Your task to perform on an android device: change your default location settings in chrome Image 0: 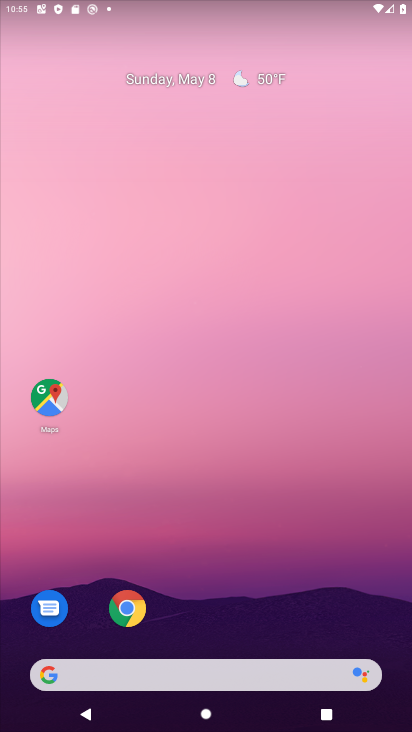
Step 0: drag from (260, 610) to (247, 110)
Your task to perform on an android device: change your default location settings in chrome Image 1: 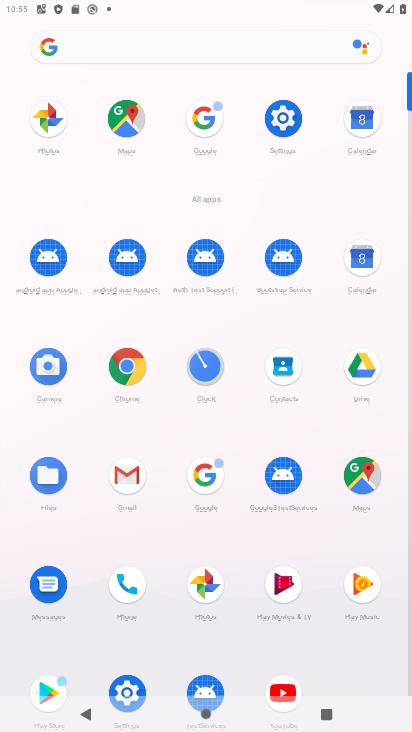
Step 1: click (129, 358)
Your task to perform on an android device: change your default location settings in chrome Image 2: 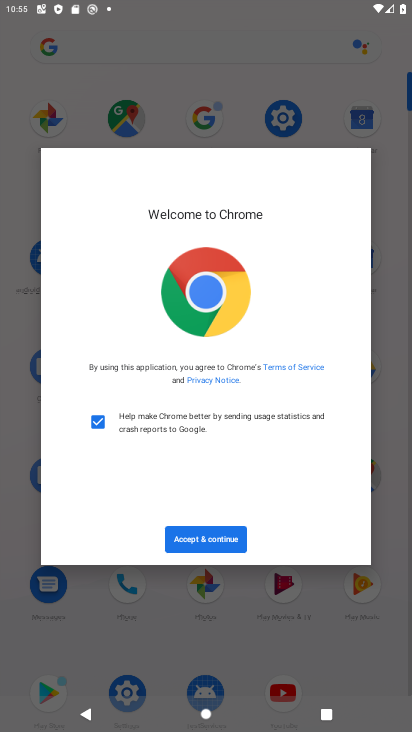
Step 2: click (238, 541)
Your task to perform on an android device: change your default location settings in chrome Image 3: 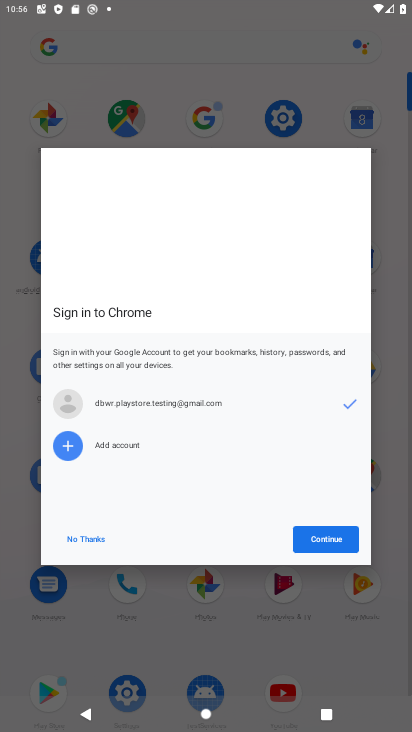
Step 3: click (93, 540)
Your task to perform on an android device: change your default location settings in chrome Image 4: 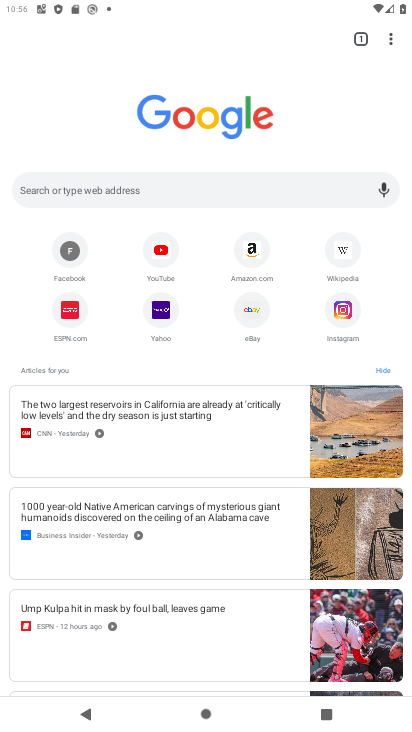
Step 4: drag from (392, 47) to (262, 332)
Your task to perform on an android device: change your default location settings in chrome Image 5: 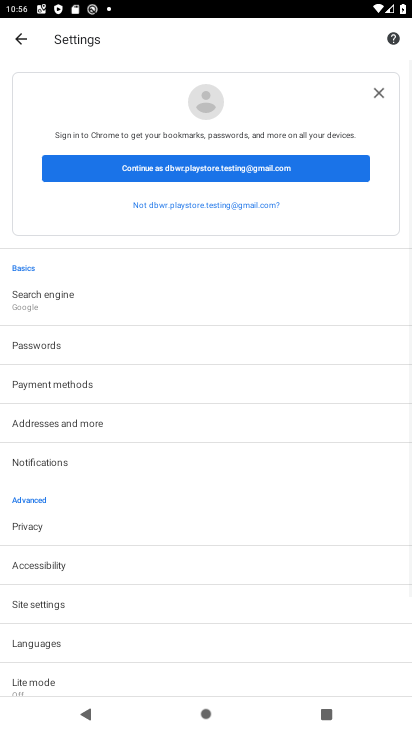
Step 5: drag from (238, 624) to (274, 221)
Your task to perform on an android device: change your default location settings in chrome Image 6: 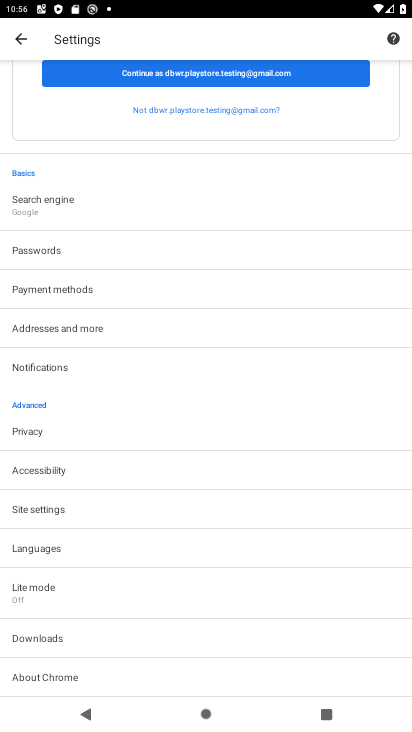
Step 6: drag from (168, 615) to (241, 207)
Your task to perform on an android device: change your default location settings in chrome Image 7: 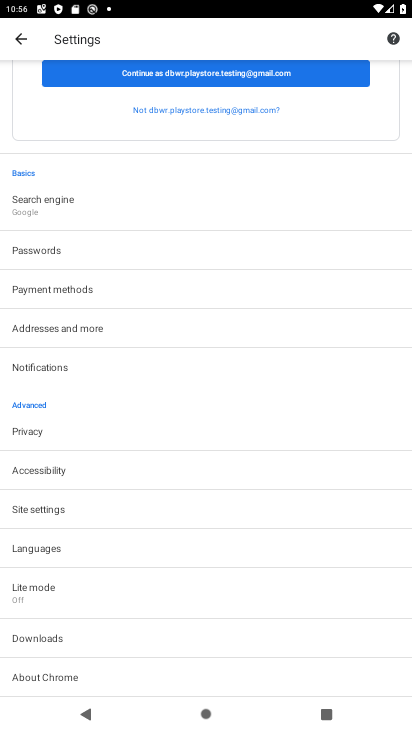
Step 7: drag from (169, 635) to (163, 232)
Your task to perform on an android device: change your default location settings in chrome Image 8: 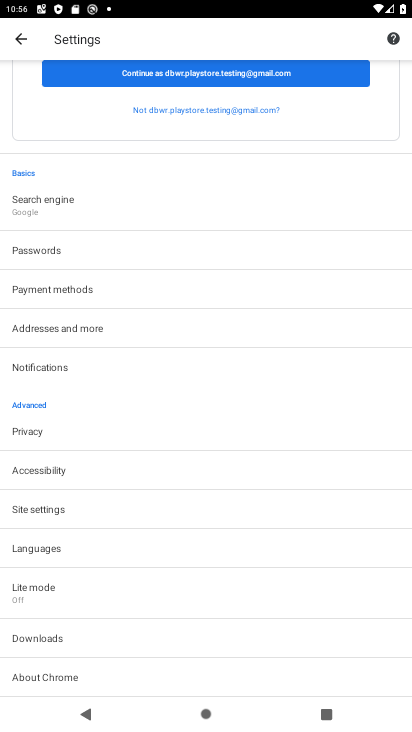
Step 8: click (16, 517)
Your task to perform on an android device: change your default location settings in chrome Image 9: 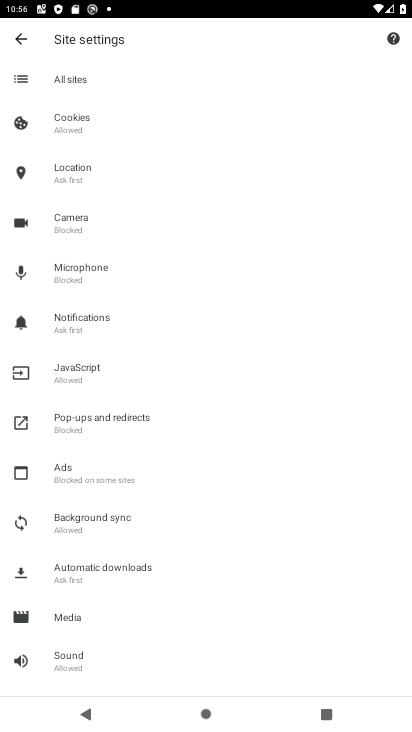
Step 9: click (83, 185)
Your task to perform on an android device: change your default location settings in chrome Image 10: 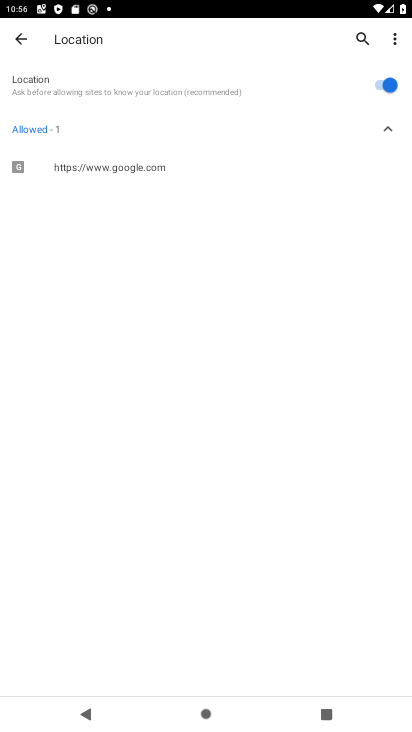
Step 10: click (372, 92)
Your task to perform on an android device: change your default location settings in chrome Image 11: 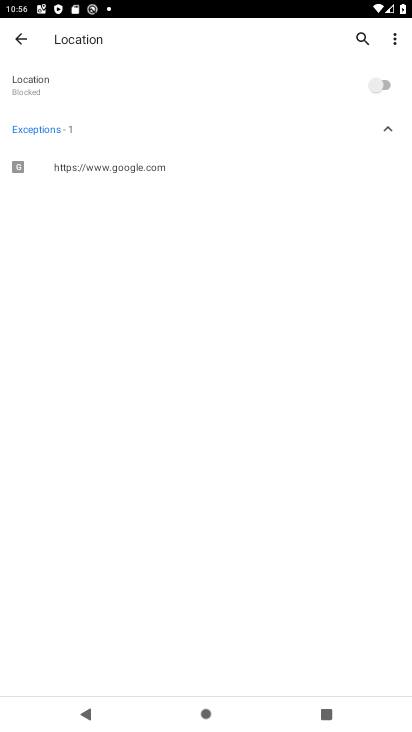
Step 11: task complete